Your task to perform on an android device: Open Google Image 0: 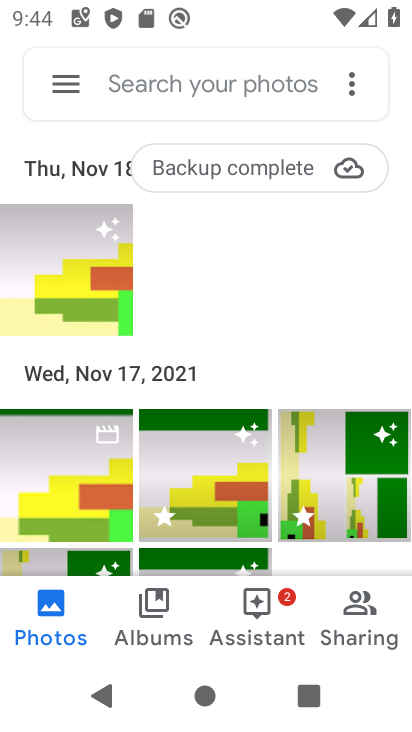
Step 0: press home button
Your task to perform on an android device: Open Google Image 1: 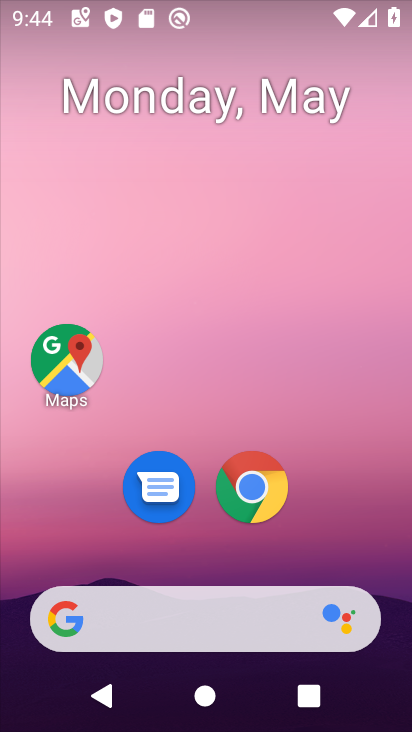
Step 1: drag from (222, 554) to (195, 12)
Your task to perform on an android device: Open Google Image 2: 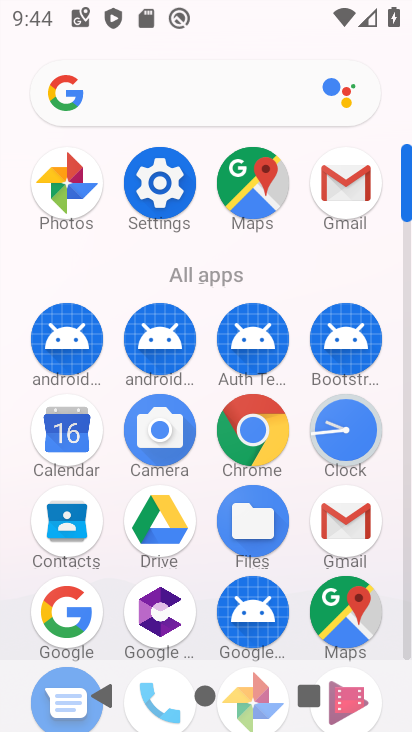
Step 2: click (76, 614)
Your task to perform on an android device: Open Google Image 3: 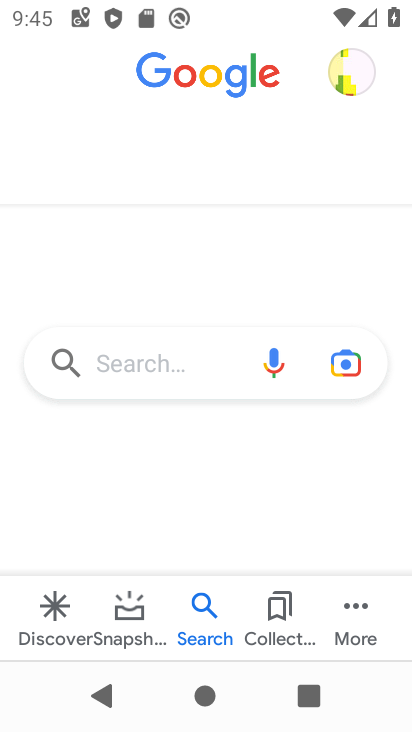
Step 3: task complete